Your task to perform on an android device: turn on location history Image 0: 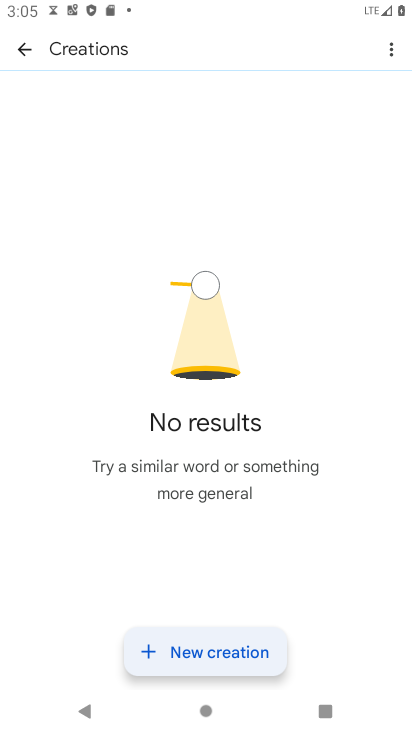
Step 0: click (216, 510)
Your task to perform on an android device: turn on location history Image 1: 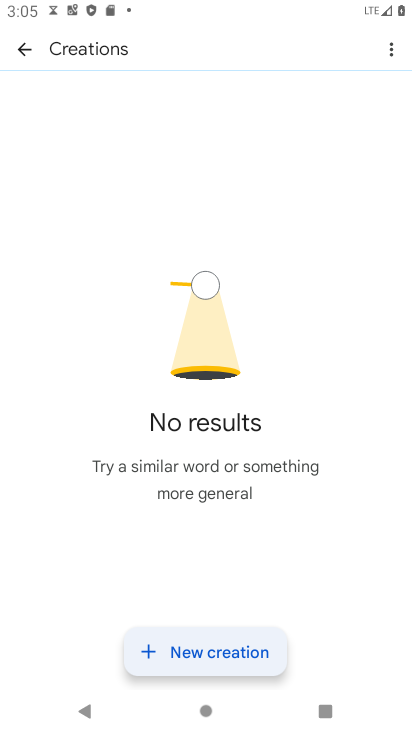
Step 1: press home button
Your task to perform on an android device: turn on location history Image 2: 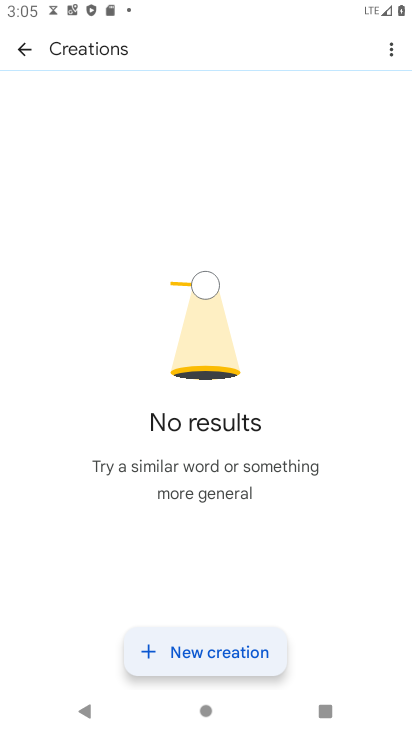
Step 2: press home button
Your task to perform on an android device: turn on location history Image 3: 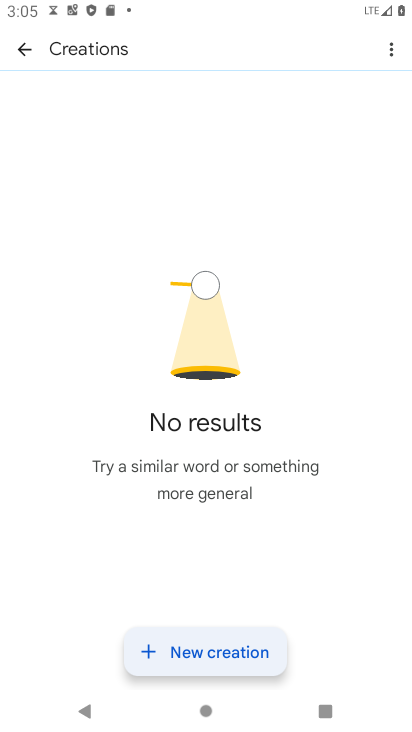
Step 3: drag from (171, 535) to (281, 91)
Your task to perform on an android device: turn on location history Image 4: 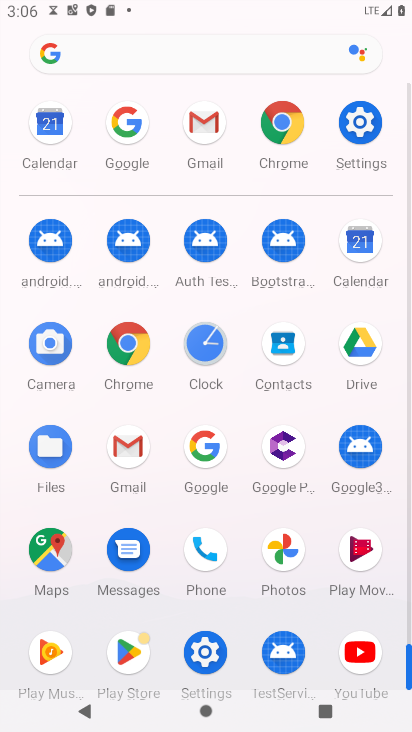
Step 4: click (193, 660)
Your task to perform on an android device: turn on location history Image 5: 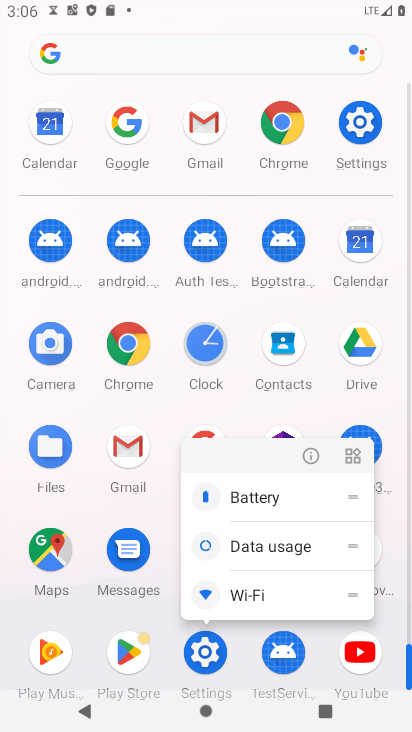
Step 5: click (306, 460)
Your task to perform on an android device: turn on location history Image 6: 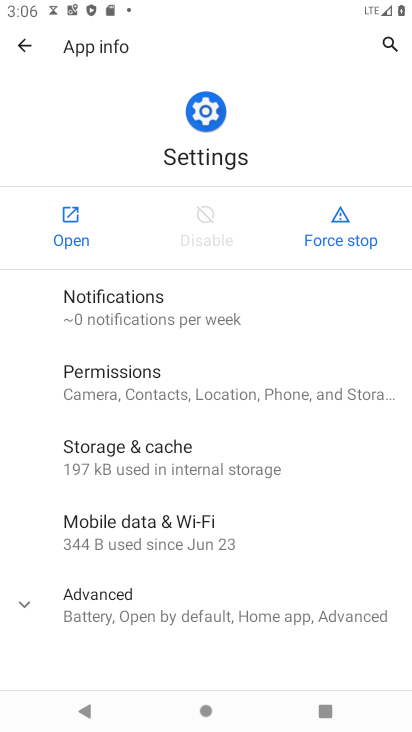
Step 6: click (56, 236)
Your task to perform on an android device: turn on location history Image 7: 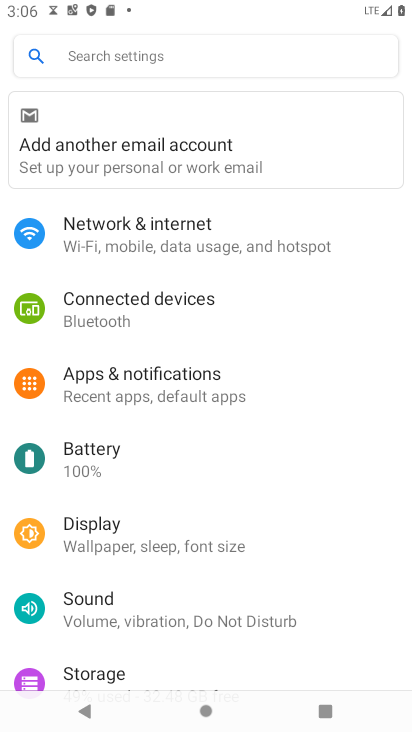
Step 7: drag from (211, 585) to (262, 181)
Your task to perform on an android device: turn on location history Image 8: 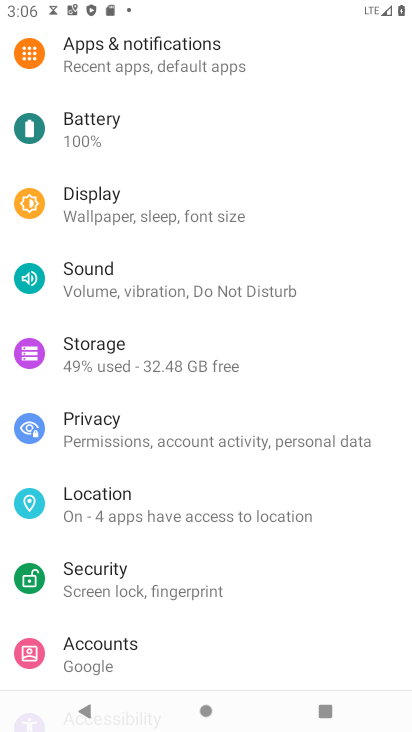
Step 8: click (121, 496)
Your task to perform on an android device: turn on location history Image 9: 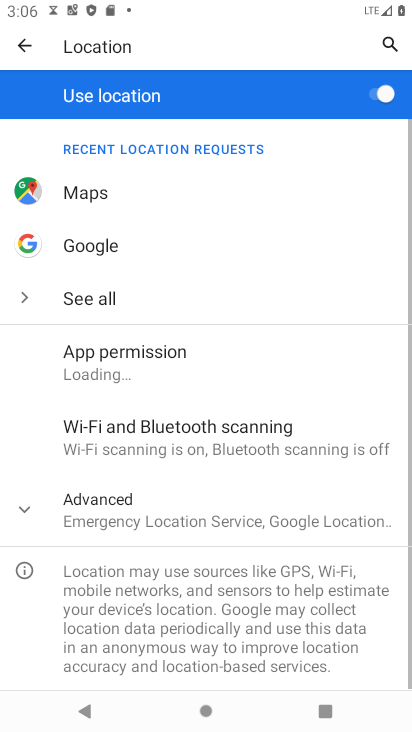
Step 9: drag from (241, 515) to (259, 292)
Your task to perform on an android device: turn on location history Image 10: 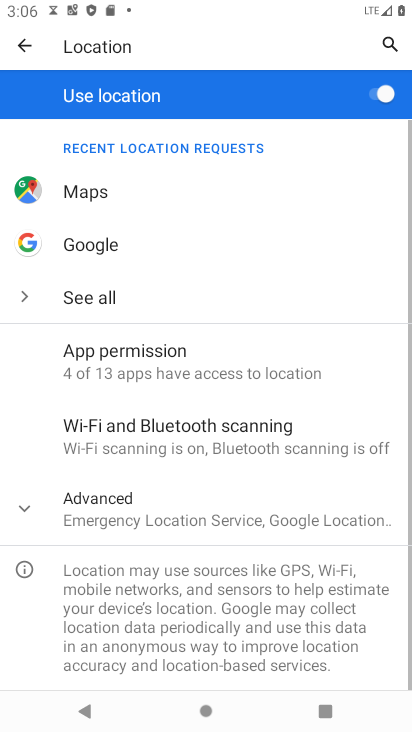
Step 10: click (109, 513)
Your task to perform on an android device: turn on location history Image 11: 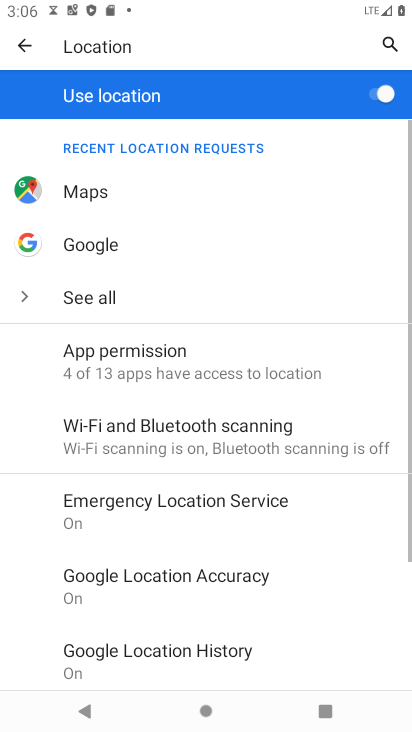
Step 11: drag from (212, 491) to (288, 155)
Your task to perform on an android device: turn on location history Image 12: 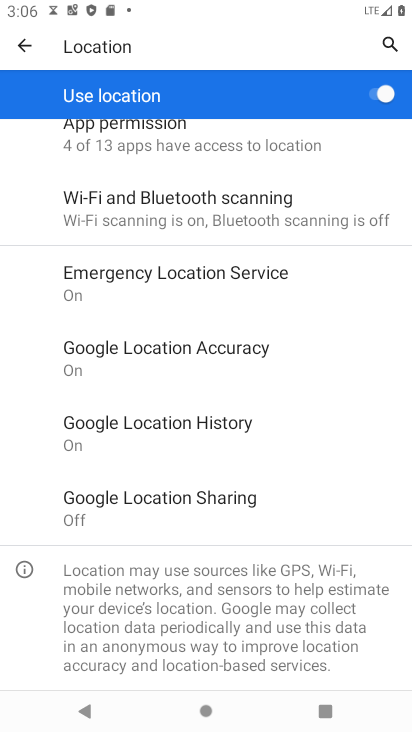
Step 12: click (219, 413)
Your task to perform on an android device: turn on location history Image 13: 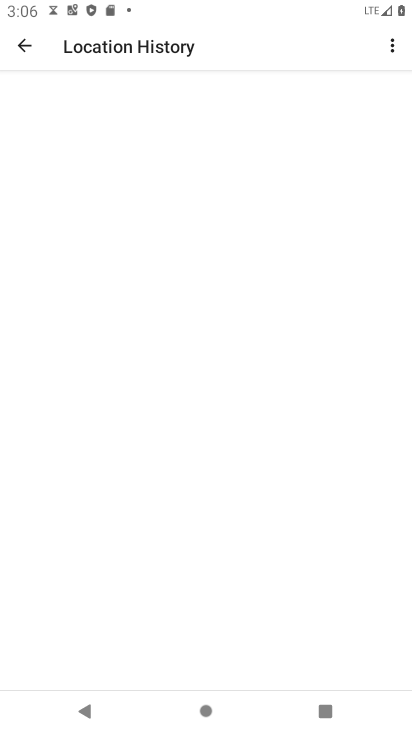
Step 13: task complete